Your task to perform on an android device: Open the web browser Image 0: 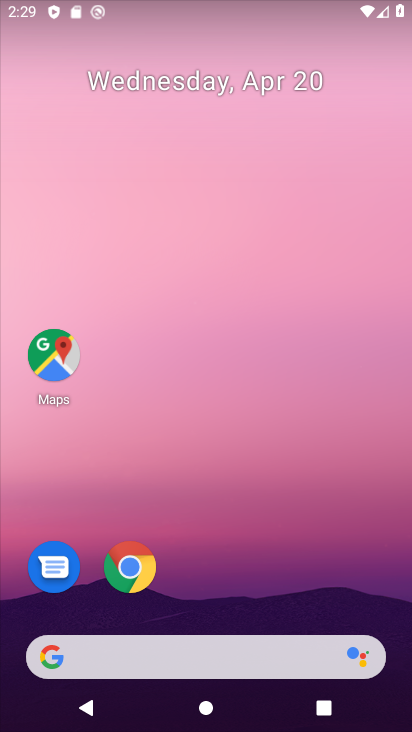
Step 0: click (139, 561)
Your task to perform on an android device: Open the web browser Image 1: 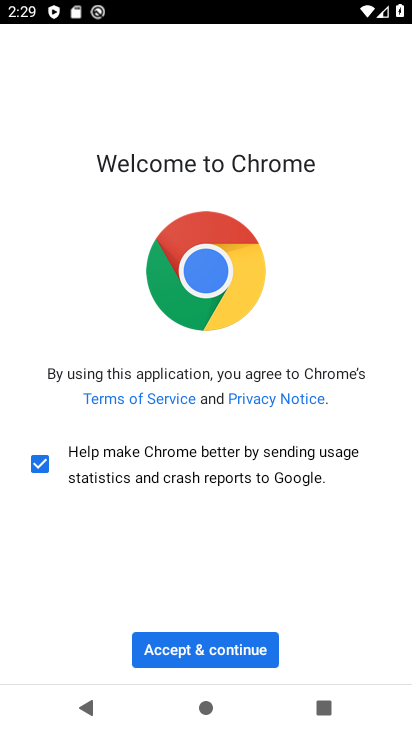
Step 1: click (226, 645)
Your task to perform on an android device: Open the web browser Image 2: 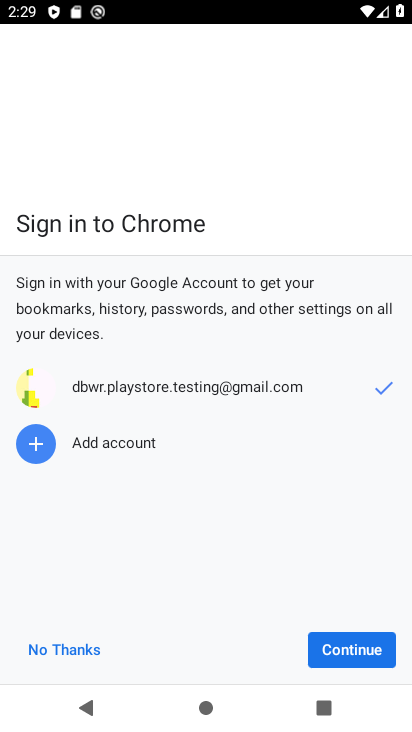
Step 2: click (356, 644)
Your task to perform on an android device: Open the web browser Image 3: 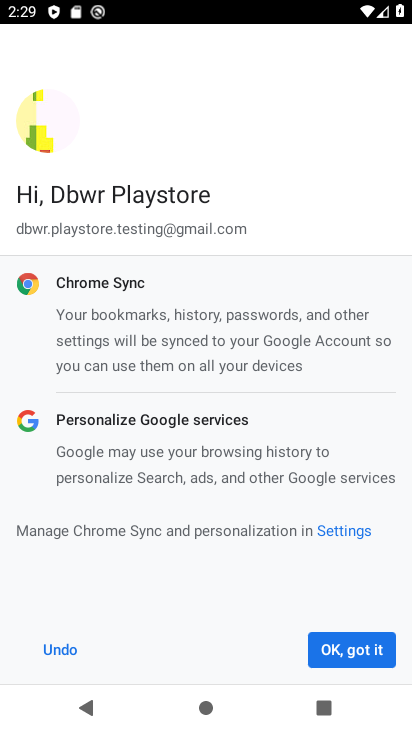
Step 3: click (370, 650)
Your task to perform on an android device: Open the web browser Image 4: 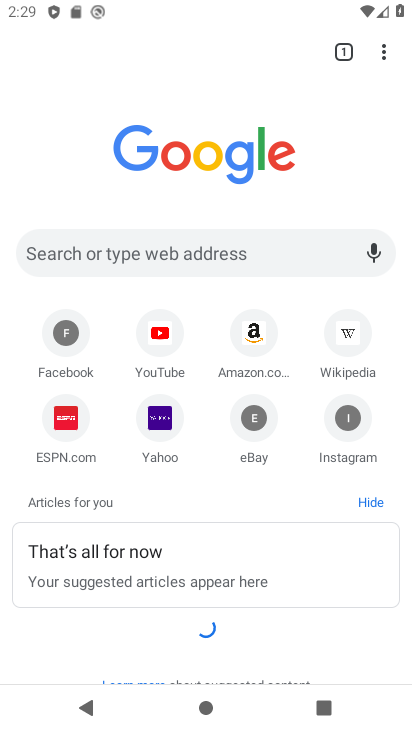
Step 4: task complete